Your task to perform on an android device: turn on the 12-hour format for clock Image 0: 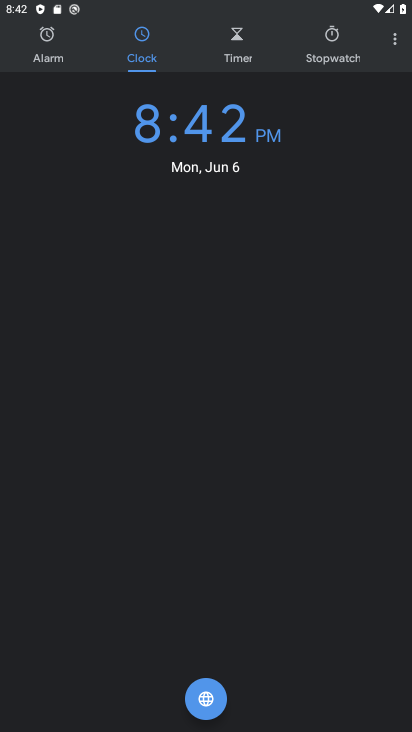
Step 0: click (390, 33)
Your task to perform on an android device: turn on the 12-hour format for clock Image 1: 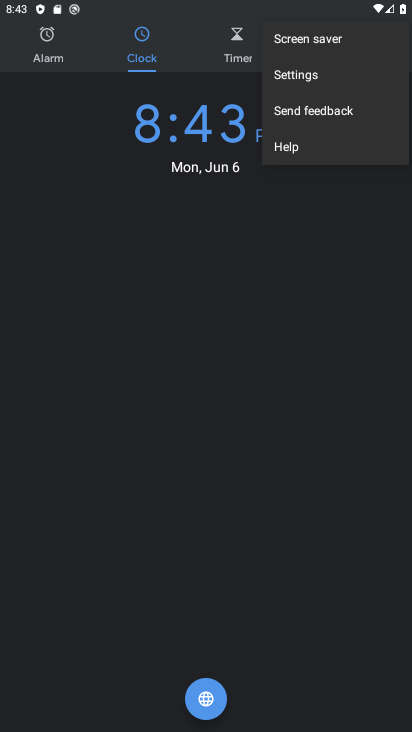
Step 1: click (373, 79)
Your task to perform on an android device: turn on the 12-hour format for clock Image 2: 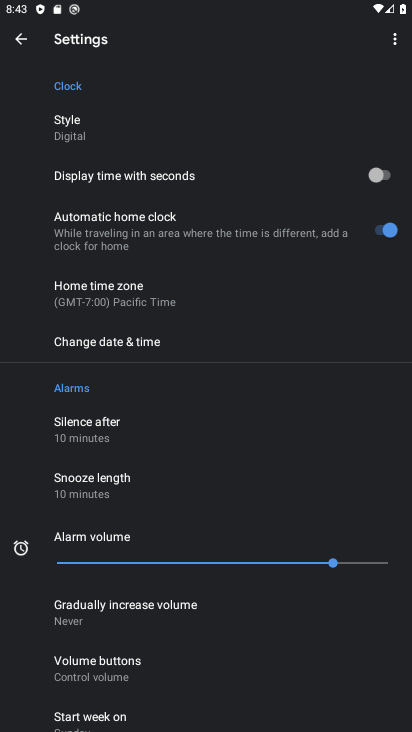
Step 2: click (111, 331)
Your task to perform on an android device: turn on the 12-hour format for clock Image 3: 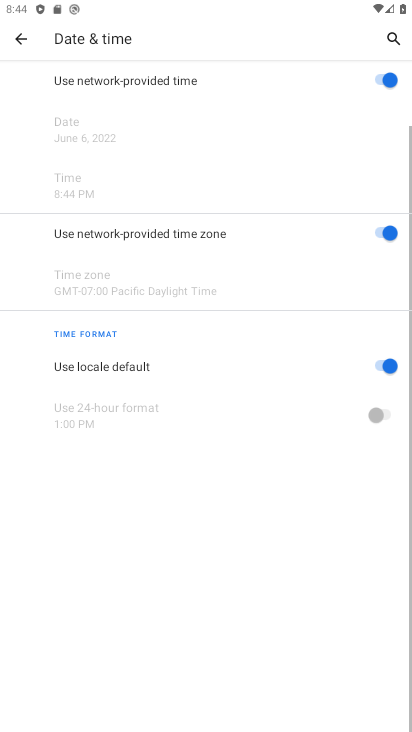
Step 3: task complete